Your task to perform on an android device: toggle notification dots Image 0: 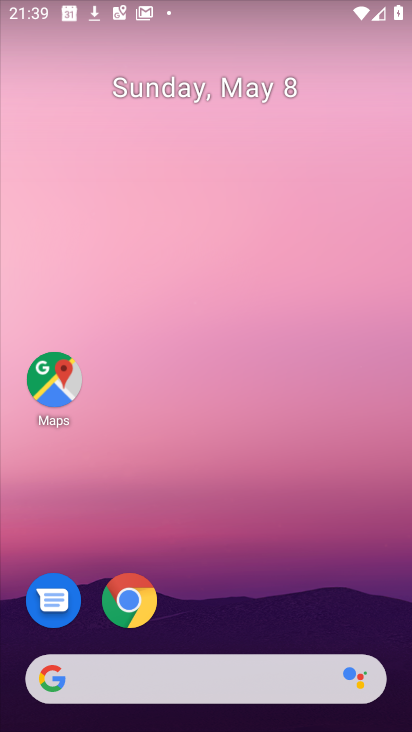
Step 0: drag from (302, 697) to (240, 226)
Your task to perform on an android device: toggle notification dots Image 1: 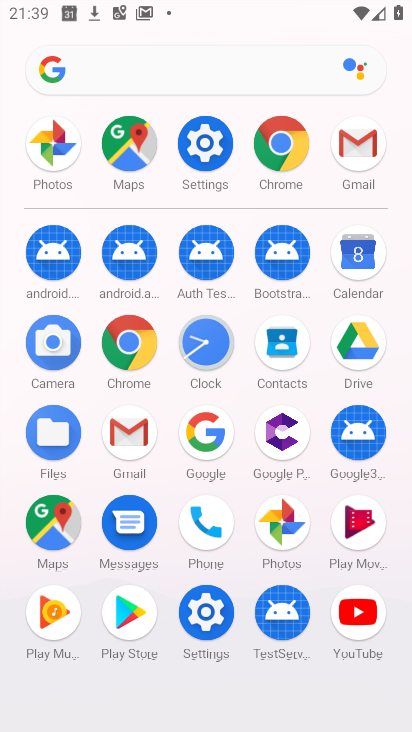
Step 1: click (208, 143)
Your task to perform on an android device: toggle notification dots Image 2: 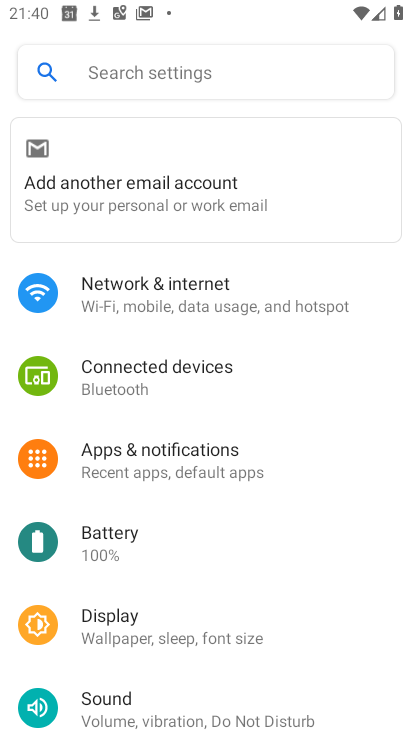
Step 2: click (162, 77)
Your task to perform on an android device: toggle notification dots Image 3: 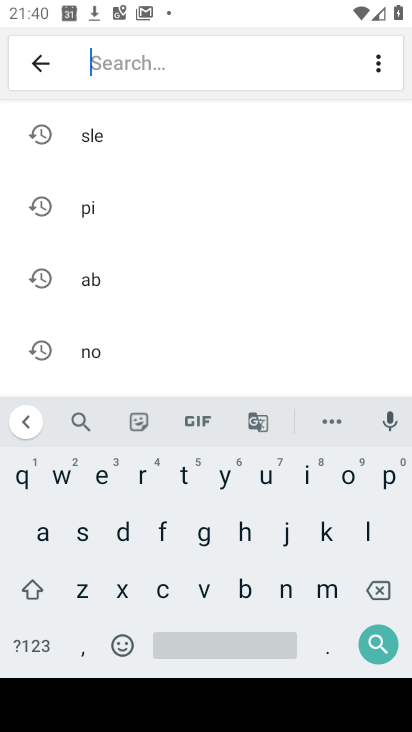
Step 3: click (124, 543)
Your task to perform on an android device: toggle notification dots Image 4: 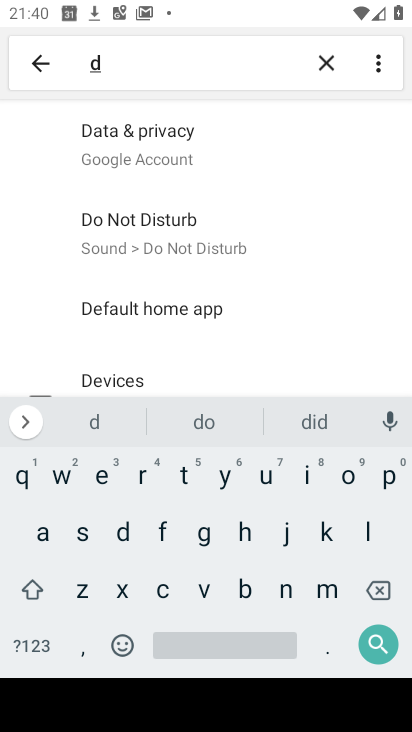
Step 4: click (347, 477)
Your task to perform on an android device: toggle notification dots Image 5: 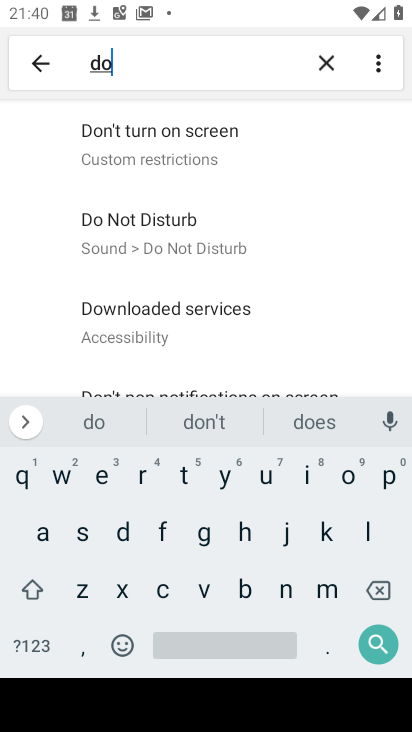
Step 5: click (179, 476)
Your task to perform on an android device: toggle notification dots Image 6: 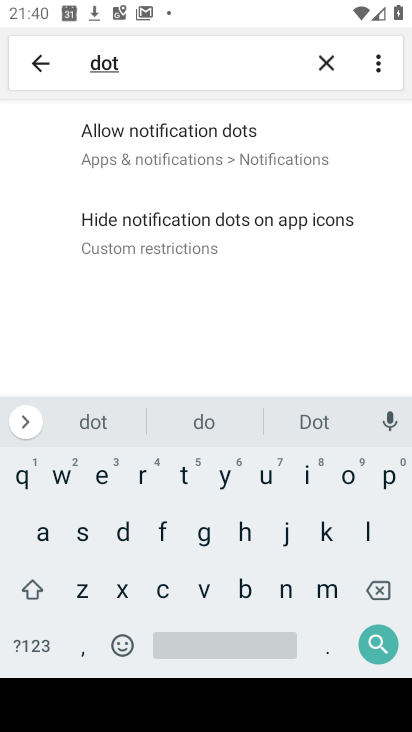
Step 6: click (169, 137)
Your task to perform on an android device: toggle notification dots Image 7: 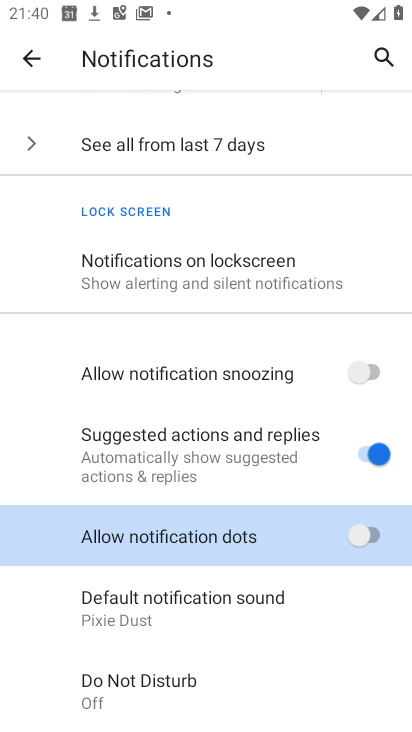
Step 7: task complete